Your task to perform on an android device: Find coffee shops on Maps Image 0: 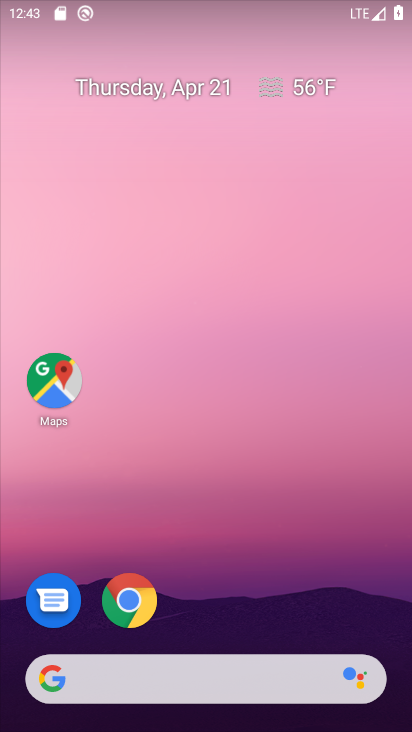
Step 0: click (49, 374)
Your task to perform on an android device: Find coffee shops on Maps Image 1: 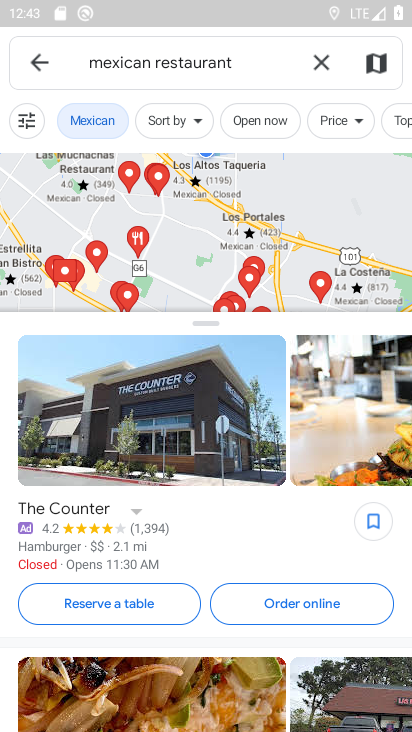
Step 1: click (321, 61)
Your task to perform on an android device: Find coffee shops on Maps Image 2: 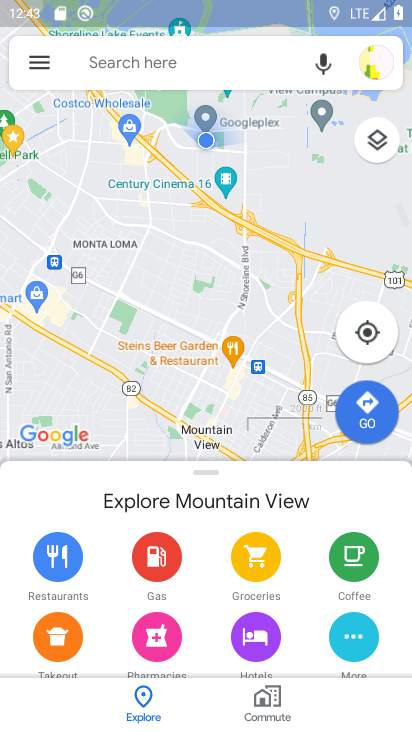
Step 2: click (298, 61)
Your task to perform on an android device: Find coffee shops on Maps Image 3: 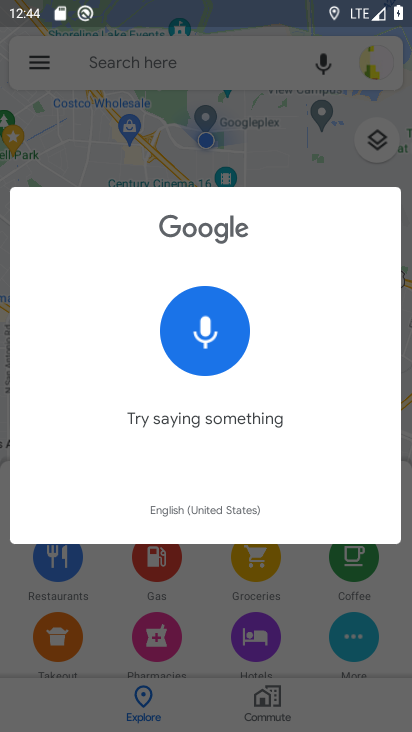
Step 3: click (253, 64)
Your task to perform on an android device: Find coffee shops on Maps Image 4: 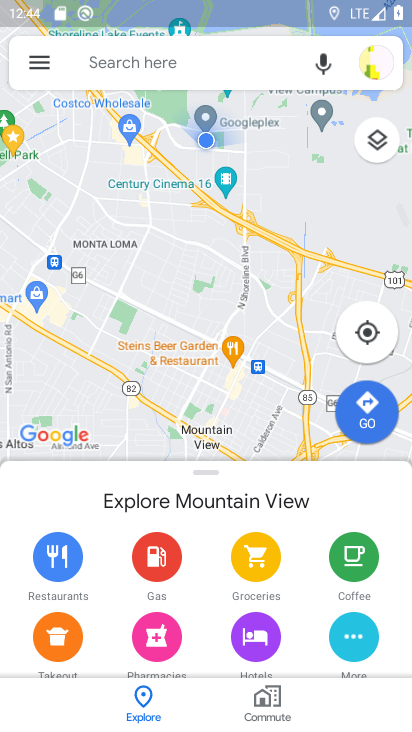
Step 4: click (253, 64)
Your task to perform on an android device: Find coffee shops on Maps Image 5: 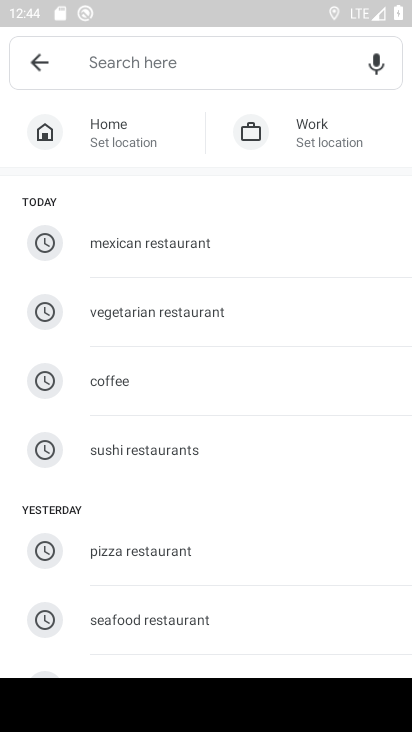
Step 5: click (200, 374)
Your task to perform on an android device: Find coffee shops on Maps Image 6: 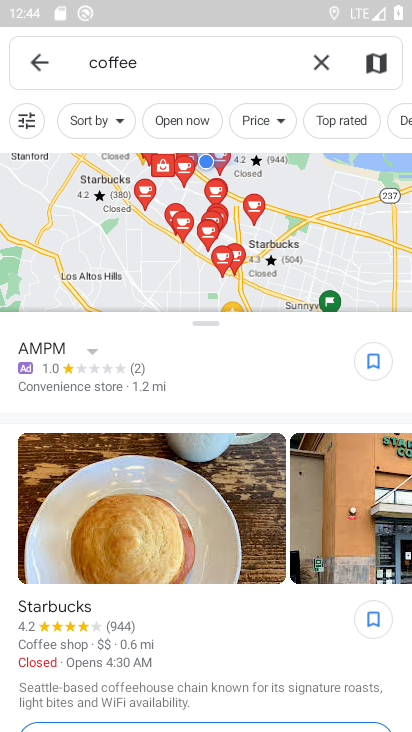
Step 6: task complete